Your task to perform on an android device: add a contact in the contacts app Image 0: 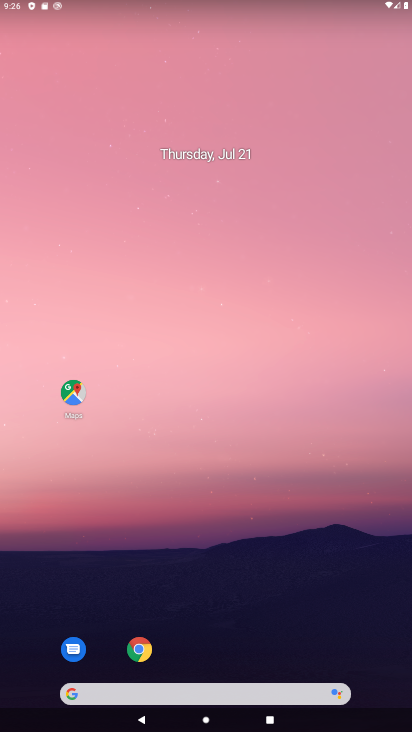
Step 0: drag from (49, 683) to (177, 241)
Your task to perform on an android device: add a contact in the contacts app Image 1: 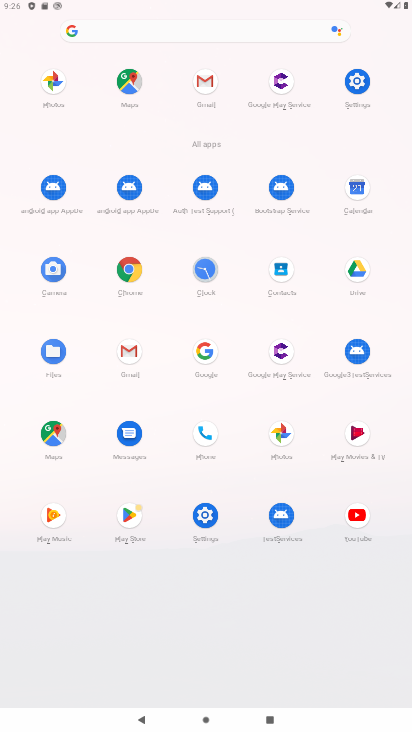
Step 1: click (204, 430)
Your task to perform on an android device: add a contact in the contacts app Image 2: 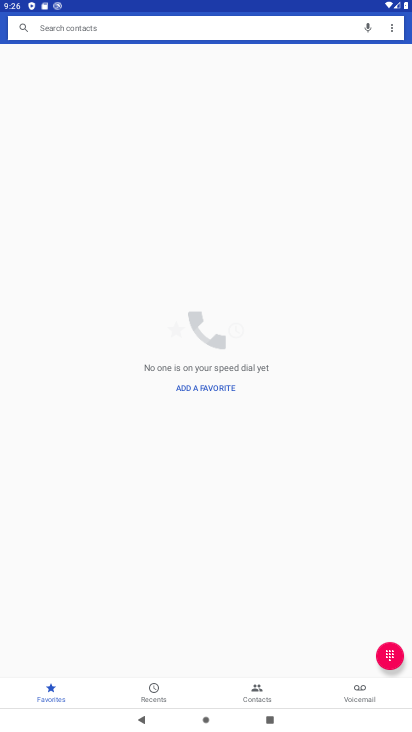
Step 2: click (250, 692)
Your task to perform on an android device: add a contact in the contacts app Image 3: 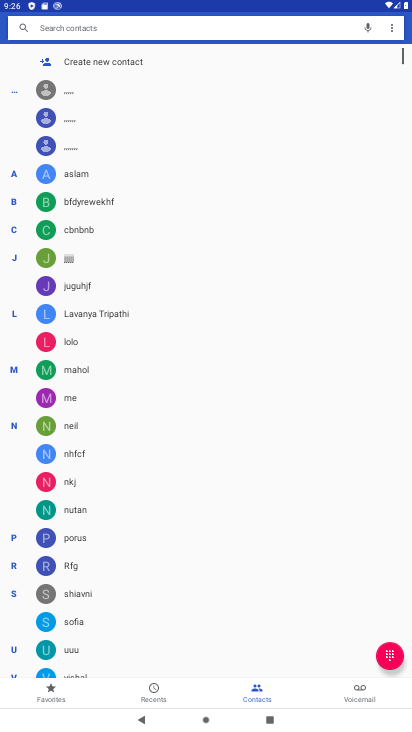
Step 3: click (117, 58)
Your task to perform on an android device: add a contact in the contacts app Image 4: 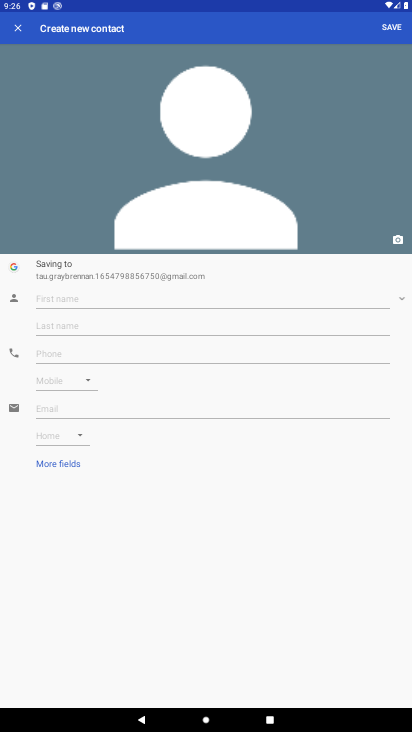
Step 4: click (50, 293)
Your task to perform on an android device: add a contact in the contacts app Image 5: 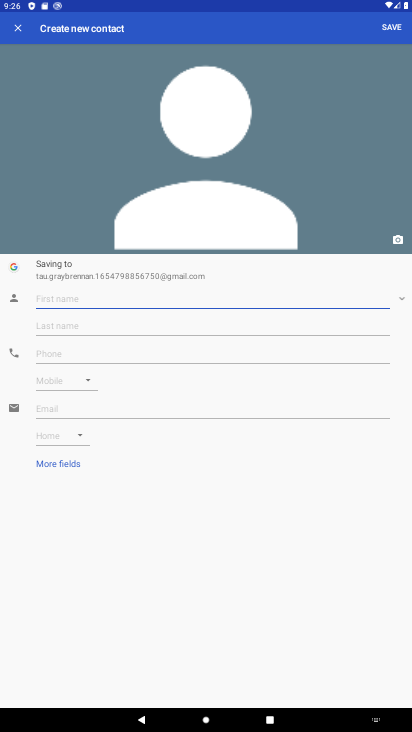
Step 5: type "ftfhfu"
Your task to perform on an android device: add a contact in the contacts app Image 6: 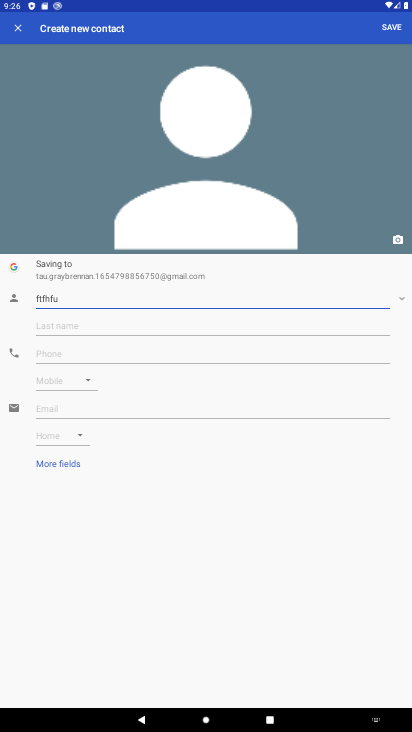
Step 6: click (388, 30)
Your task to perform on an android device: add a contact in the contacts app Image 7: 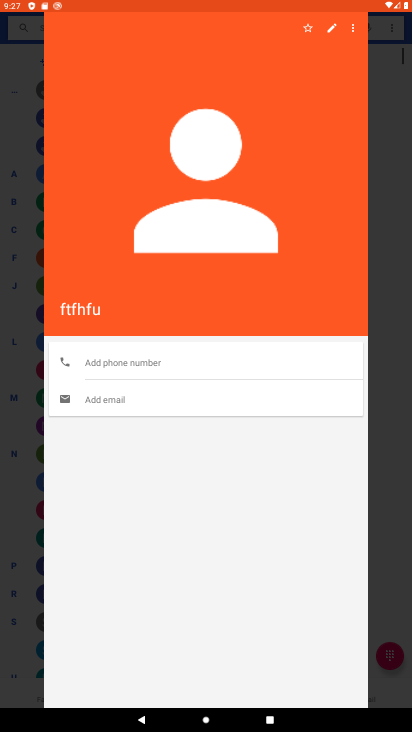
Step 7: task complete